Your task to perform on an android device: move an email to a new category in the gmail app Image 0: 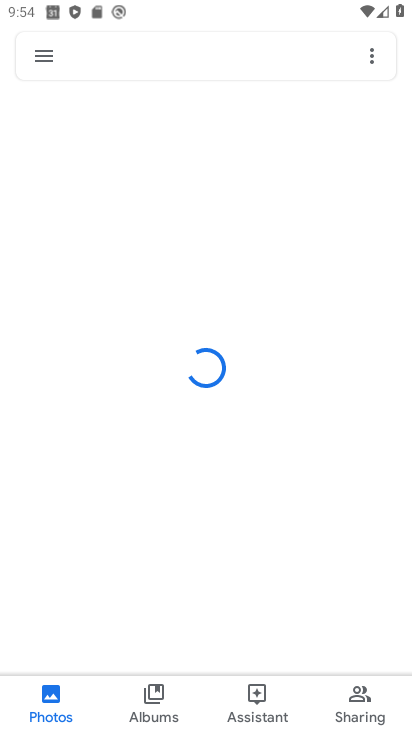
Step 0: press home button
Your task to perform on an android device: move an email to a new category in the gmail app Image 1: 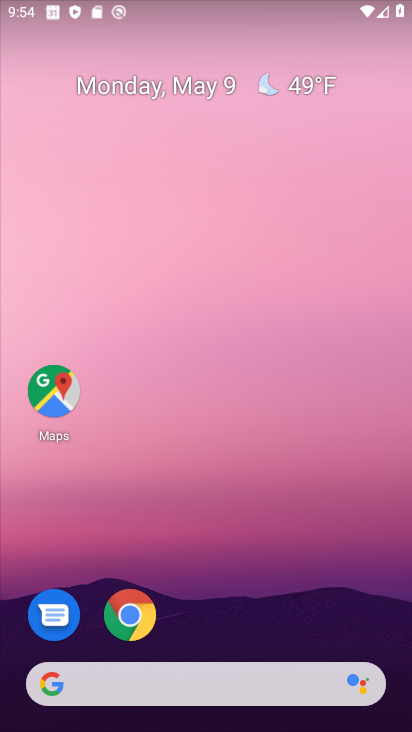
Step 1: drag from (273, 544) to (265, 160)
Your task to perform on an android device: move an email to a new category in the gmail app Image 2: 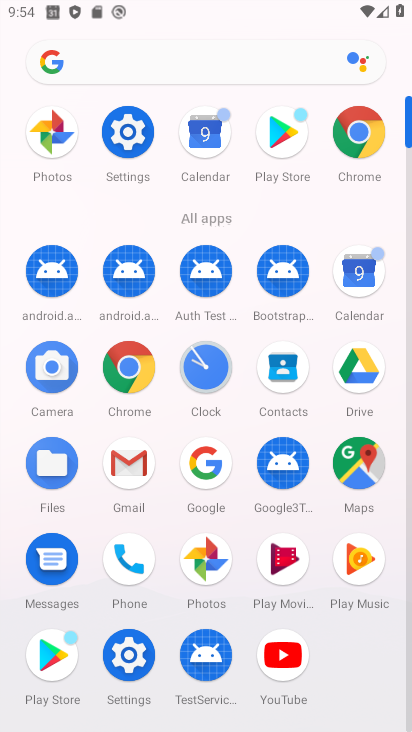
Step 2: click (140, 473)
Your task to perform on an android device: move an email to a new category in the gmail app Image 3: 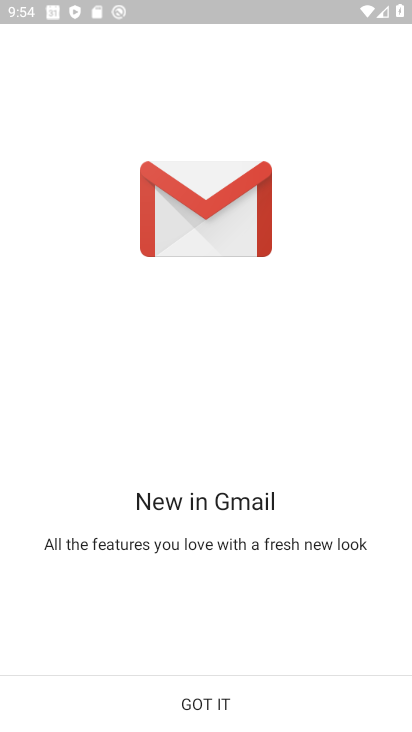
Step 3: click (221, 700)
Your task to perform on an android device: move an email to a new category in the gmail app Image 4: 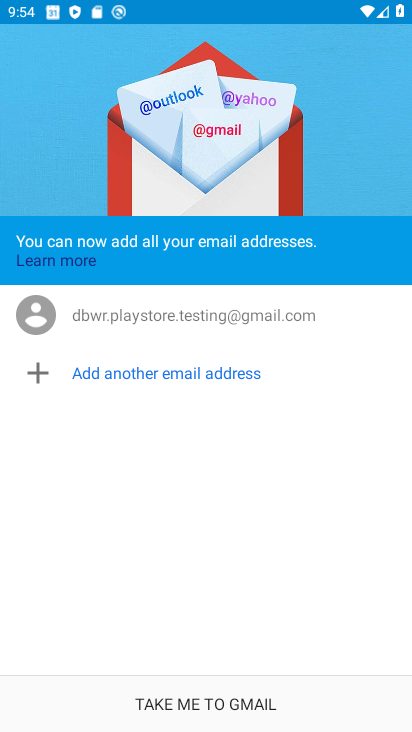
Step 4: click (221, 699)
Your task to perform on an android device: move an email to a new category in the gmail app Image 5: 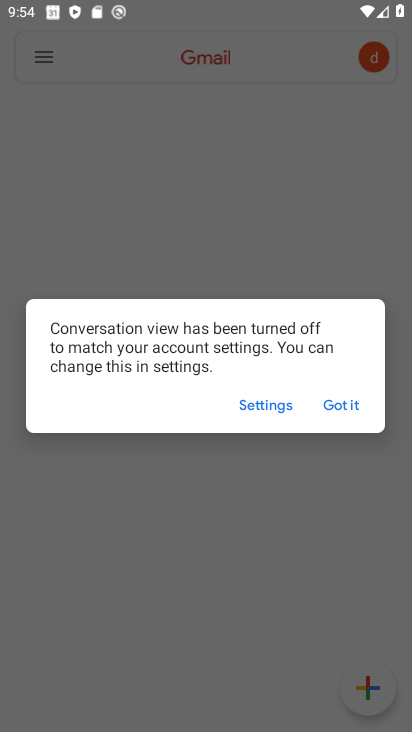
Step 5: click (332, 399)
Your task to perform on an android device: move an email to a new category in the gmail app Image 6: 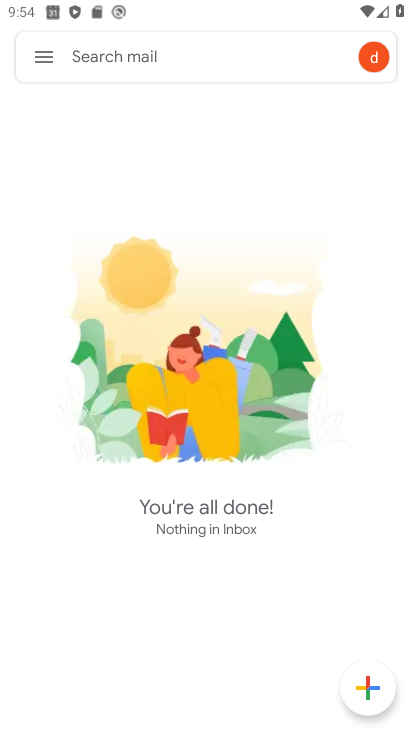
Step 6: click (53, 59)
Your task to perform on an android device: move an email to a new category in the gmail app Image 7: 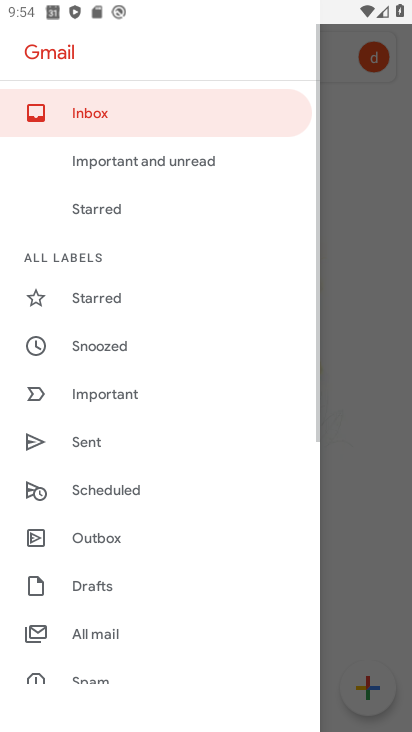
Step 7: click (142, 642)
Your task to perform on an android device: move an email to a new category in the gmail app Image 8: 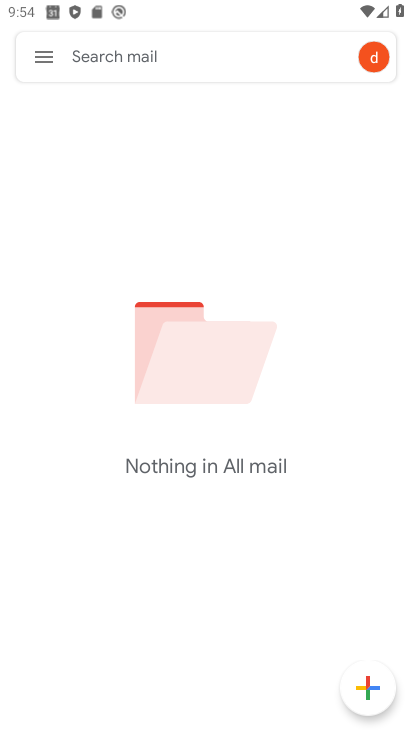
Step 8: task complete